Your task to perform on an android device: Go to privacy settings Image 0: 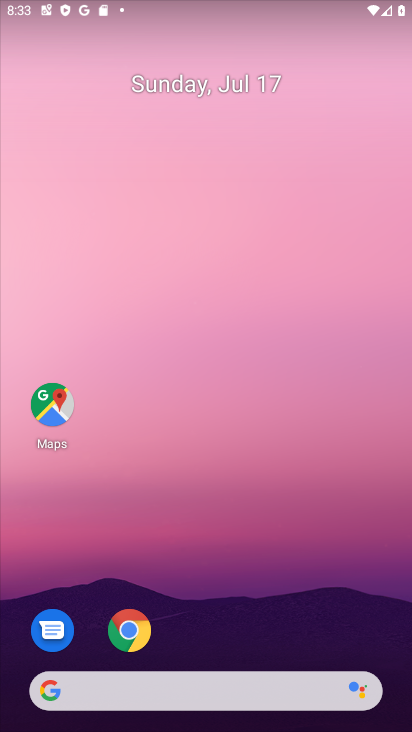
Step 0: click (220, 160)
Your task to perform on an android device: Go to privacy settings Image 1: 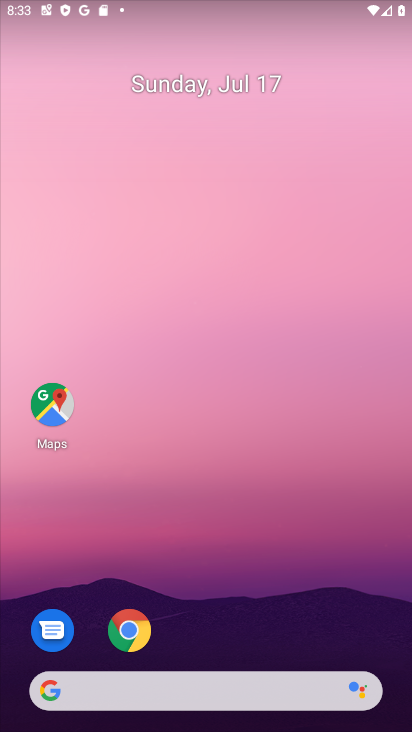
Step 1: click (244, 8)
Your task to perform on an android device: Go to privacy settings Image 2: 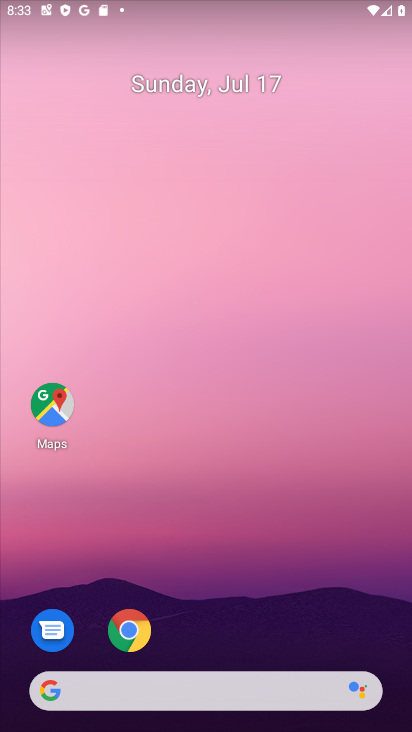
Step 2: click (272, 180)
Your task to perform on an android device: Go to privacy settings Image 3: 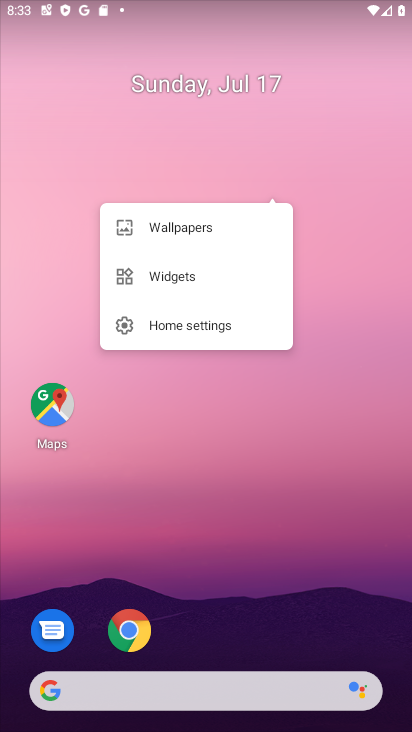
Step 3: click (215, 567)
Your task to perform on an android device: Go to privacy settings Image 4: 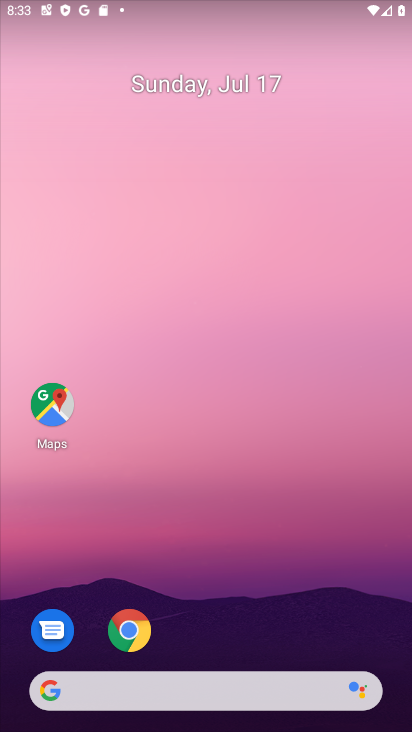
Step 4: drag from (215, 557) to (302, 0)
Your task to perform on an android device: Go to privacy settings Image 5: 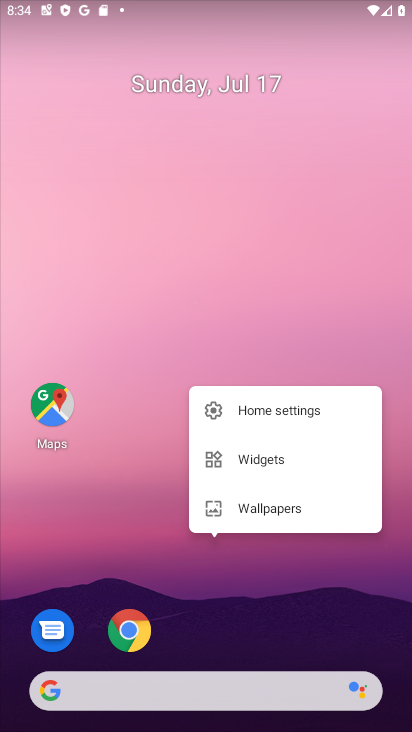
Step 5: click (221, 640)
Your task to perform on an android device: Go to privacy settings Image 6: 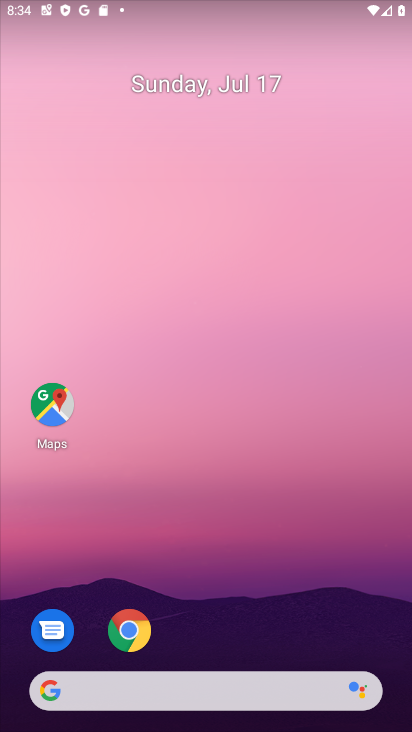
Step 6: click (77, 512)
Your task to perform on an android device: Go to privacy settings Image 7: 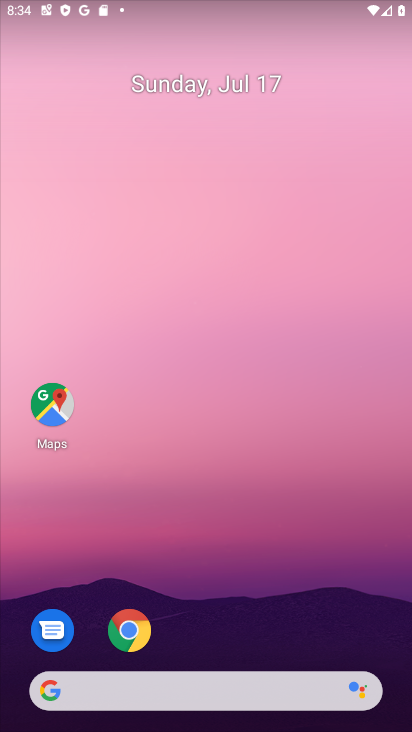
Step 7: click (288, 650)
Your task to perform on an android device: Go to privacy settings Image 8: 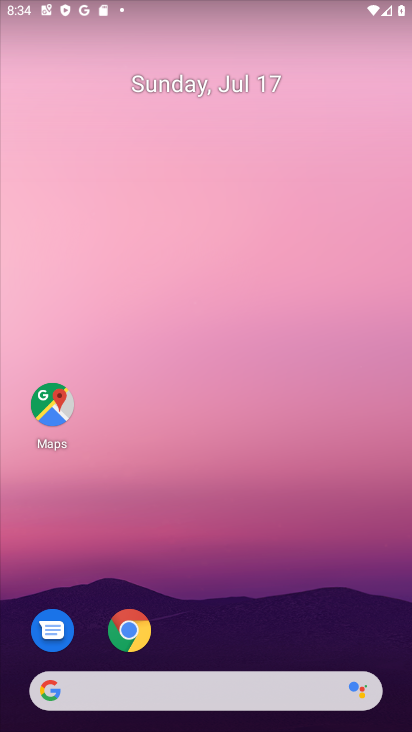
Step 8: click (148, 10)
Your task to perform on an android device: Go to privacy settings Image 9: 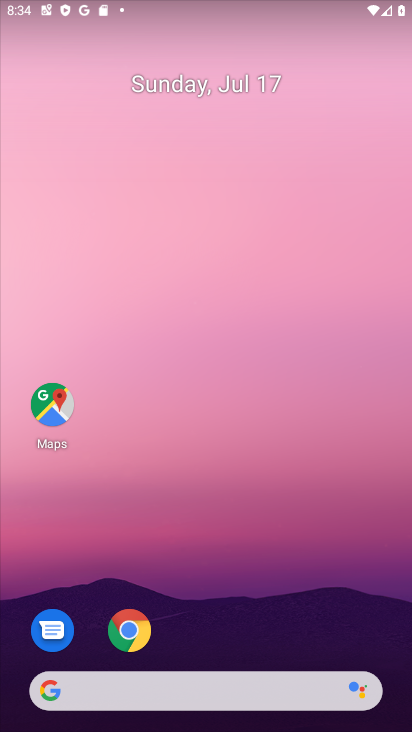
Step 9: drag from (218, 620) to (122, 3)
Your task to perform on an android device: Go to privacy settings Image 10: 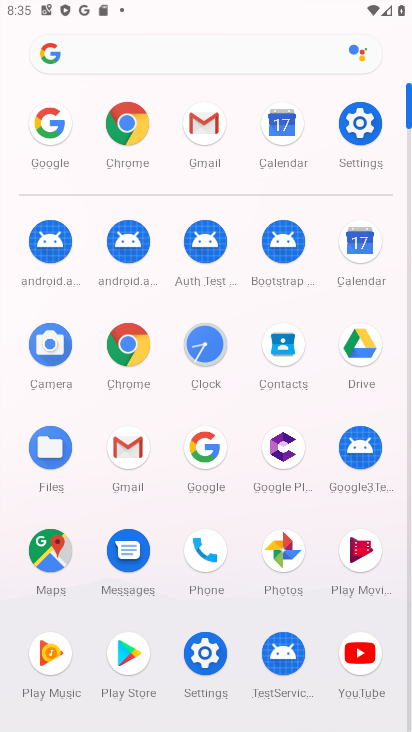
Step 10: click (362, 119)
Your task to perform on an android device: Go to privacy settings Image 11: 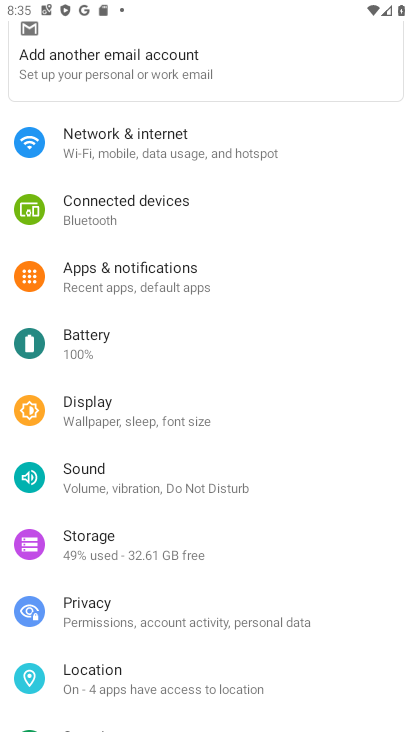
Step 11: click (83, 617)
Your task to perform on an android device: Go to privacy settings Image 12: 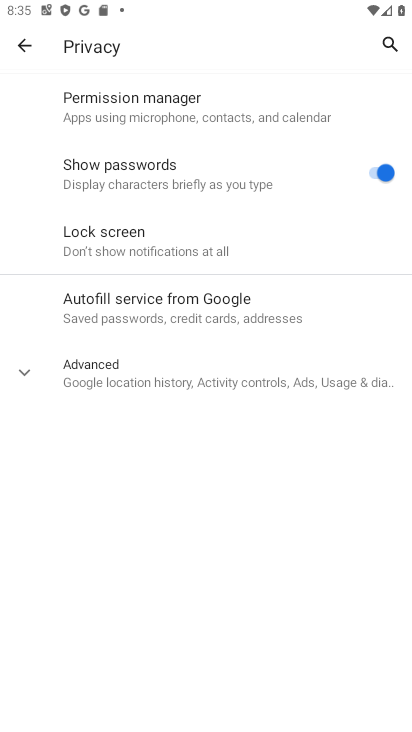
Step 12: task complete